Your task to perform on an android device: Open CNN.com Image 0: 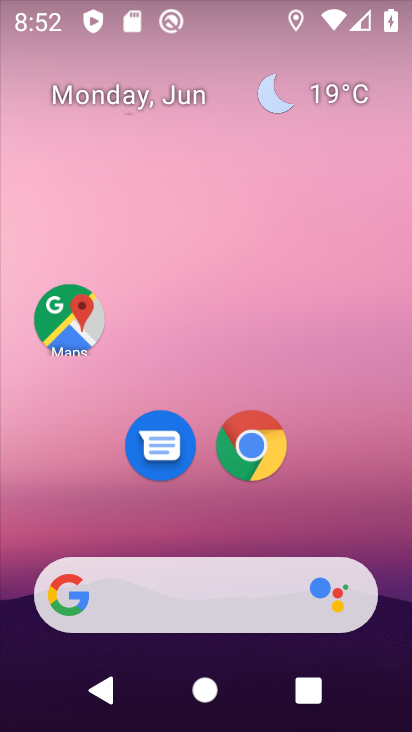
Step 0: press home button
Your task to perform on an android device: Open CNN.com Image 1: 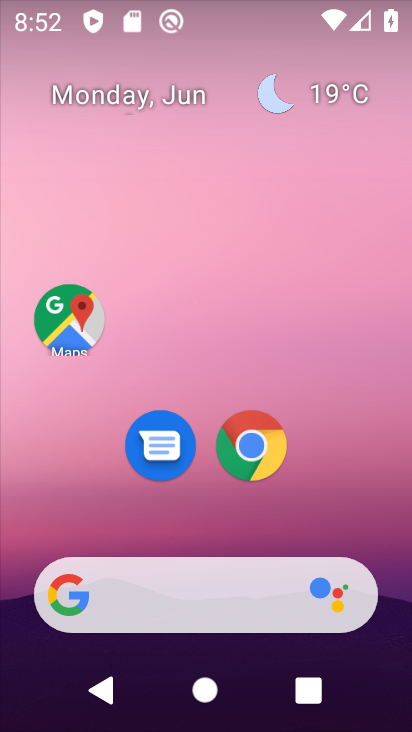
Step 1: click (255, 433)
Your task to perform on an android device: Open CNN.com Image 2: 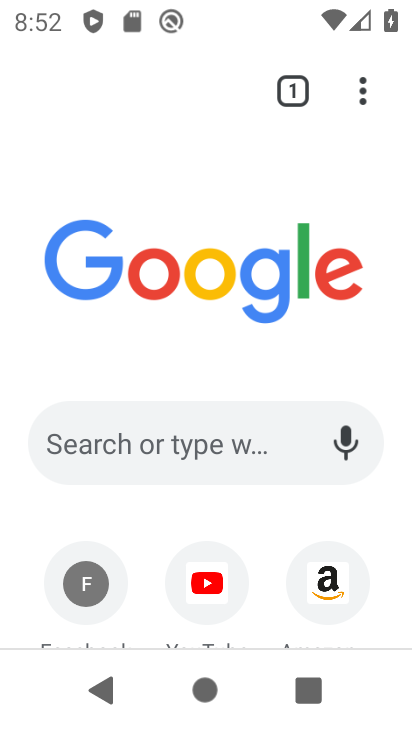
Step 2: click (180, 429)
Your task to perform on an android device: Open CNN.com Image 3: 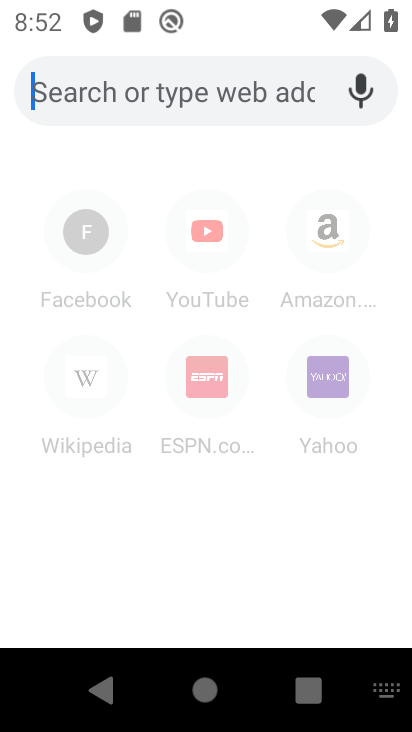
Step 3: type "cnn.com"
Your task to perform on an android device: Open CNN.com Image 4: 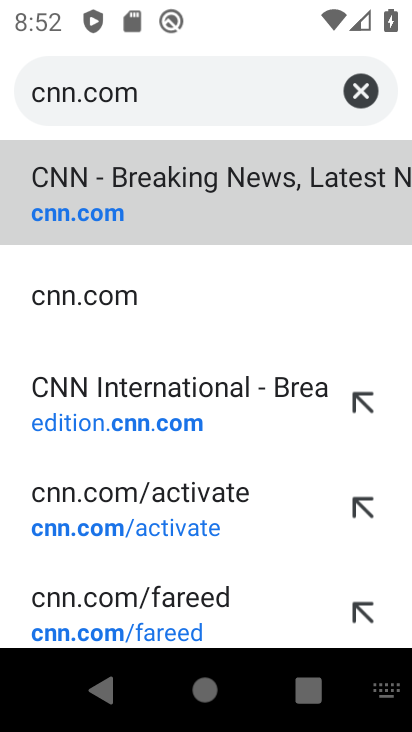
Step 4: click (133, 187)
Your task to perform on an android device: Open CNN.com Image 5: 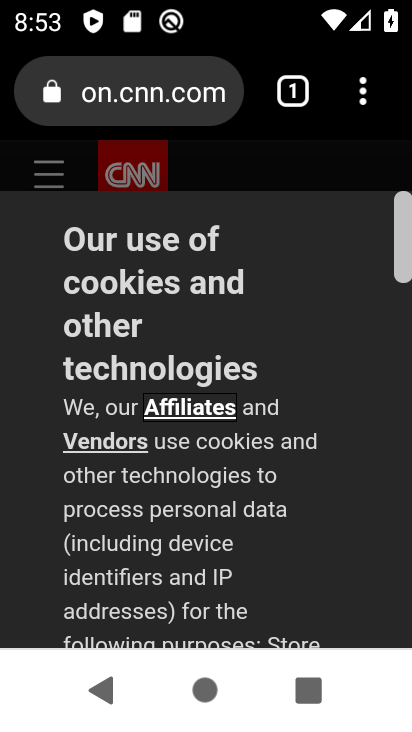
Step 5: drag from (255, 586) to (260, 141)
Your task to perform on an android device: Open CNN.com Image 6: 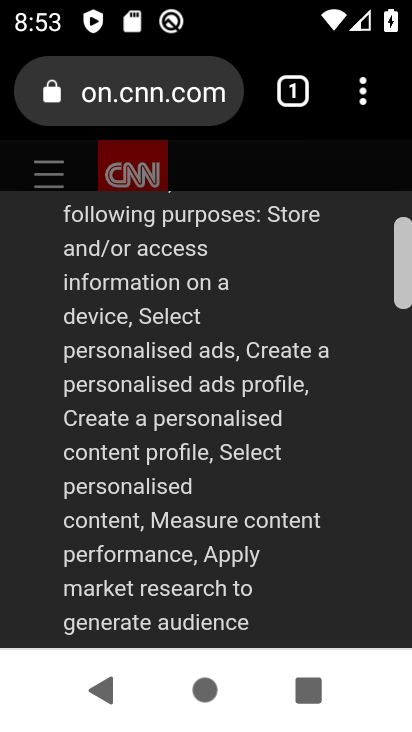
Step 6: click (398, 261)
Your task to perform on an android device: Open CNN.com Image 7: 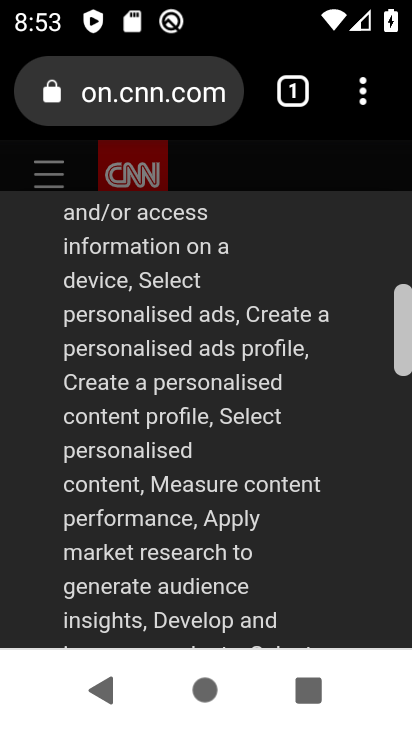
Step 7: drag from (236, 562) to (288, 47)
Your task to perform on an android device: Open CNN.com Image 8: 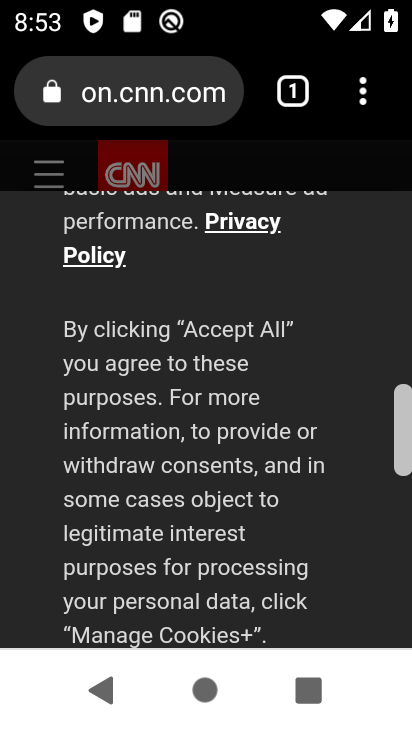
Step 8: drag from (214, 592) to (217, 116)
Your task to perform on an android device: Open CNN.com Image 9: 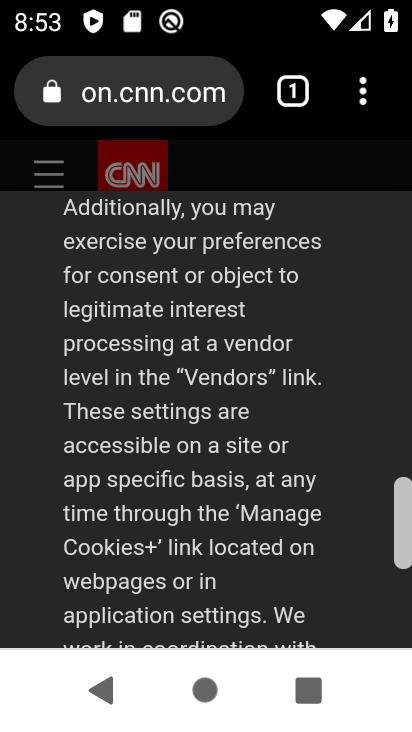
Step 9: drag from (215, 590) to (259, 136)
Your task to perform on an android device: Open CNN.com Image 10: 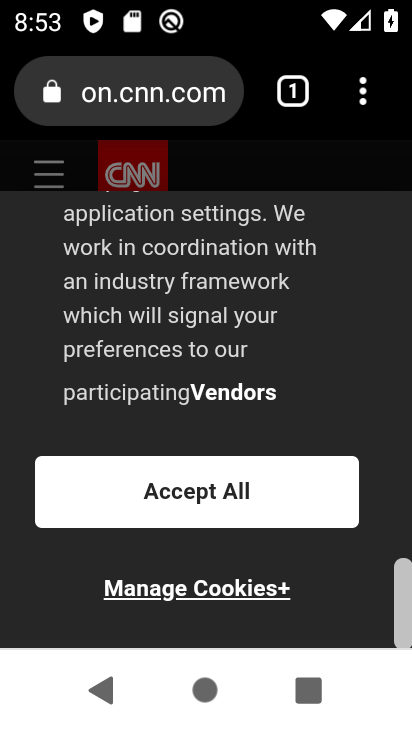
Step 10: drag from (209, 597) to (219, 143)
Your task to perform on an android device: Open CNN.com Image 11: 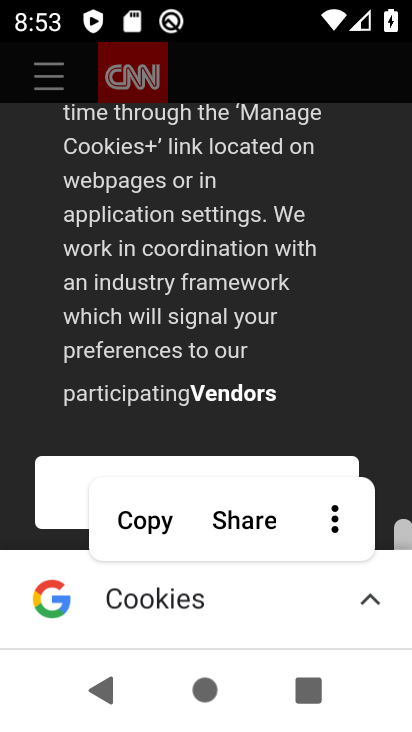
Step 11: click (64, 486)
Your task to perform on an android device: Open CNN.com Image 12: 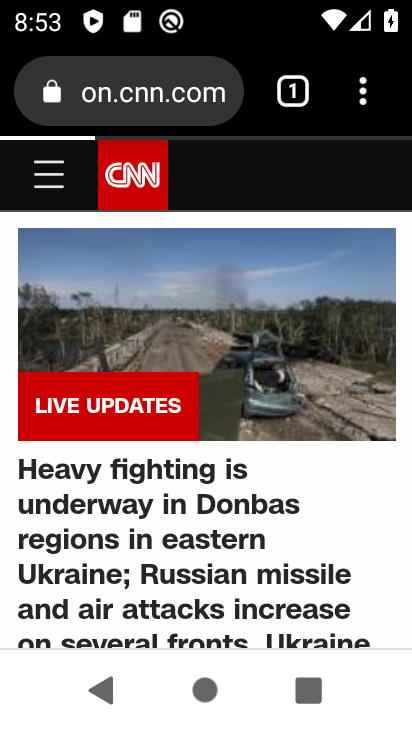
Step 12: task complete